Your task to perform on an android device: Go to accessibility settings Image 0: 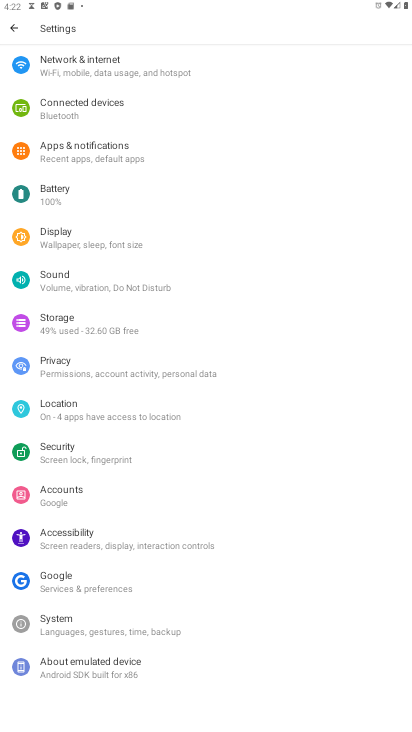
Step 0: press home button
Your task to perform on an android device: Go to accessibility settings Image 1: 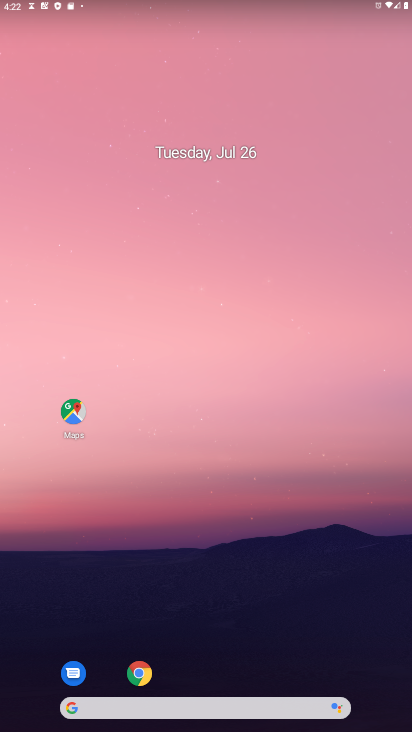
Step 1: drag from (179, 703) to (237, 56)
Your task to perform on an android device: Go to accessibility settings Image 2: 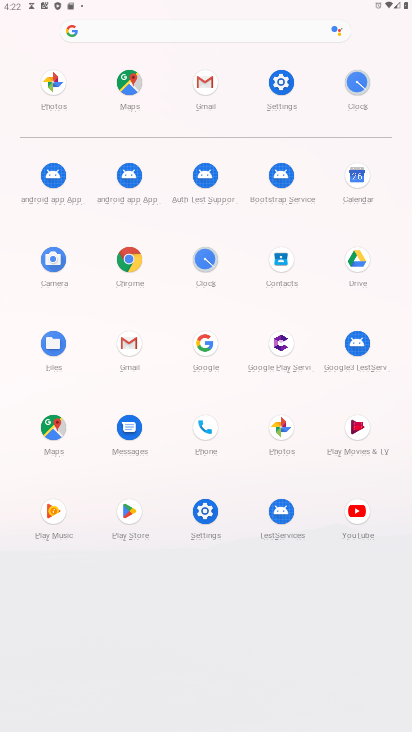
Step 2: click (279, 82)
Your task to perform on an android device: Go to accessibility settings Image 3: 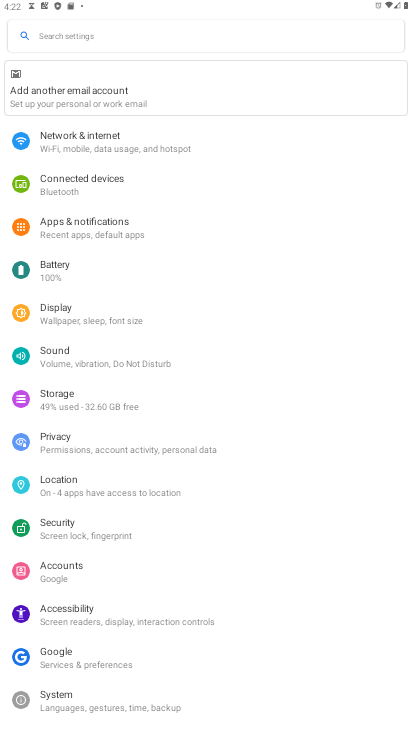
Step 3: click (79, 618)
Your task to perform on an android device: Go to accessibility settings Image 4: 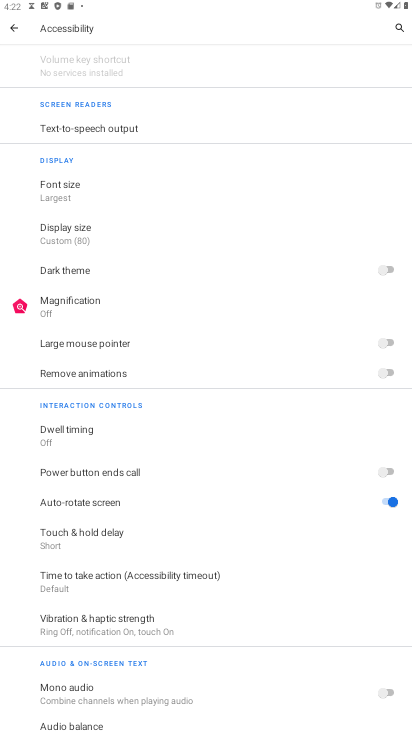
Step 4: task complete